Your task to perform on an android device: clear history in the chrome app Image 0: 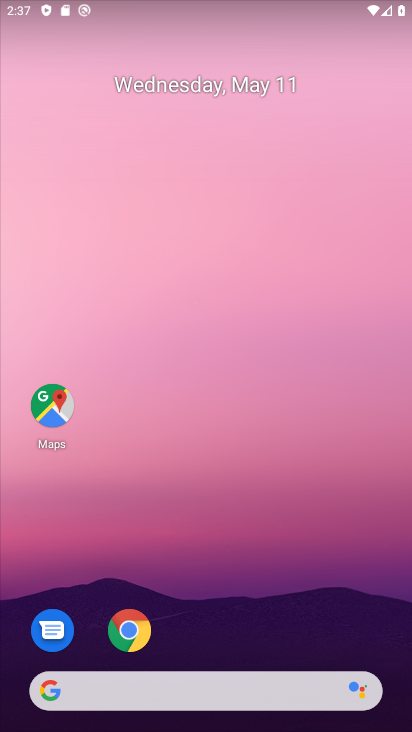
Step 0: click (137, 635)
Your task to perform on an android device: clear history in the chrome app Image 1: 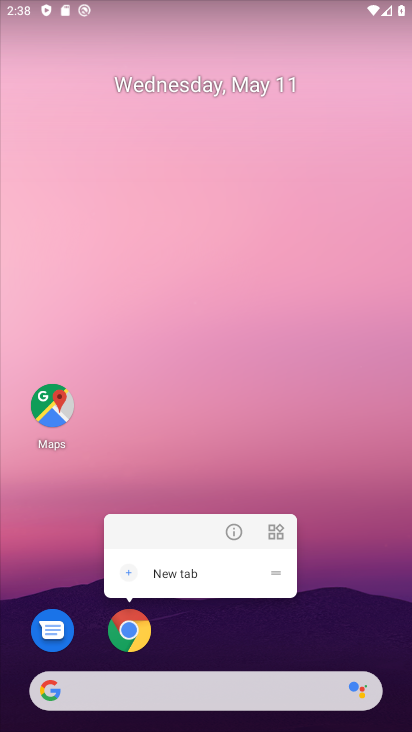
Step 1: click (194, 623)
Your task to perform on an android device: clear history in the chrome app Image 2: 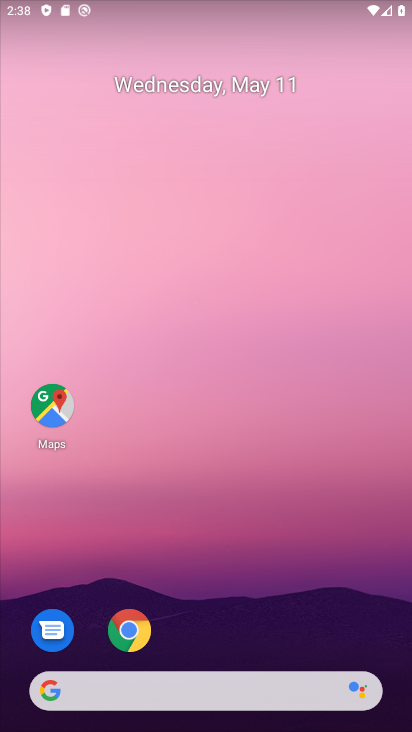
Step 2: click (127, 629)
Your task to perform on an android device: clear history in the chrome app Image 3: 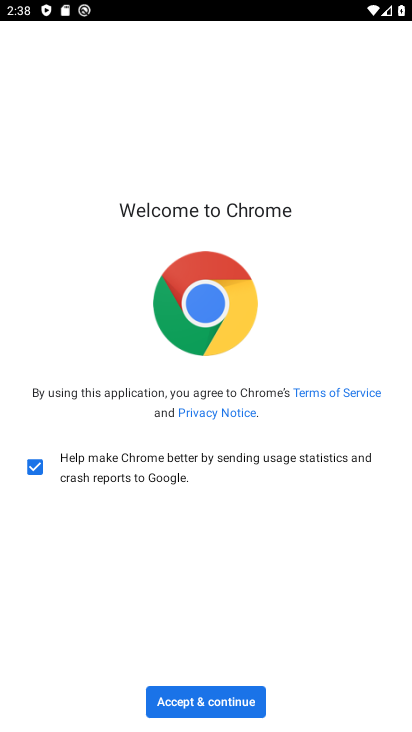
Step 3: click (194, 712)
Your task to perform on an android device: clear history in the chrome app Image 4: 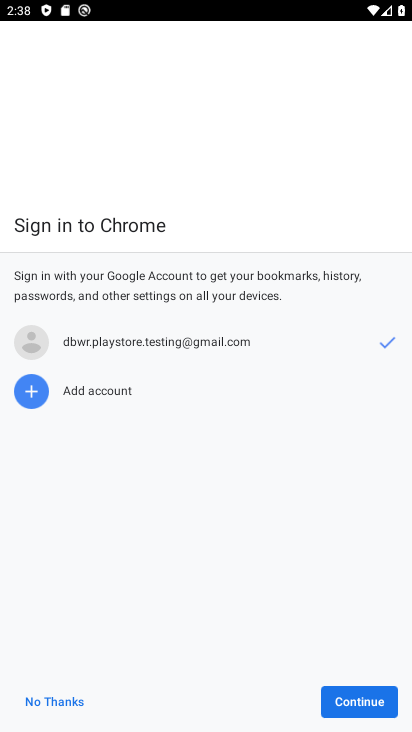
Step 4: click (43, 705)
Your task to perform on an android device: clear history in the chrome app Image 5: 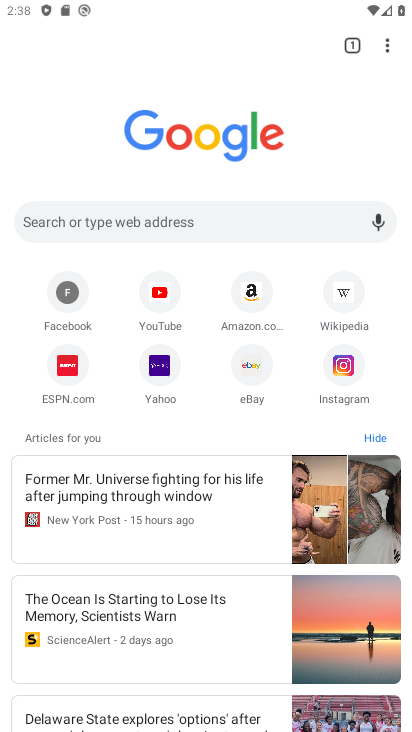
Step 5: drag from (388, 45) to (222, 386)
Your task to perform on an android device: clear history in the chrome app Image 6: 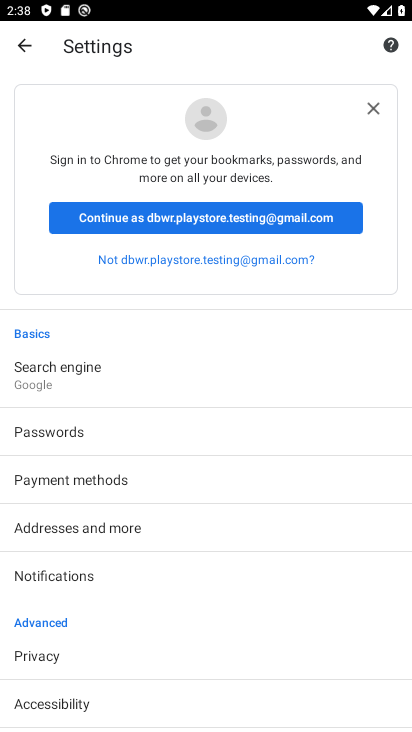
Step 6: click (42, 661)
Your task to perform on an android device: clear history in the chrome app Image 7: 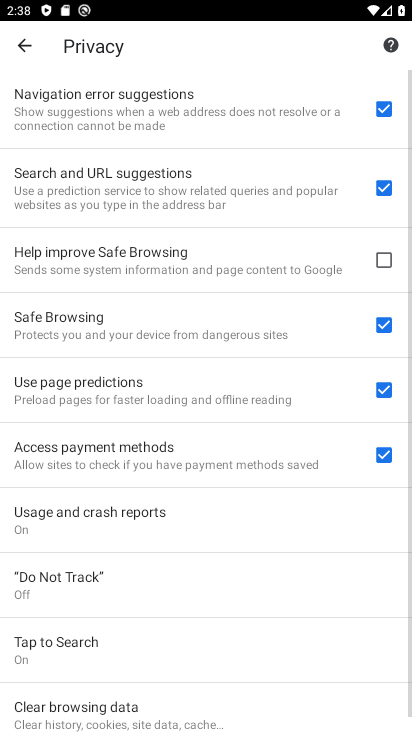
Step 7: drag from (172, 654) to (174, 400)
Your task to perform on an android device: clear history in the chrome app Image 8: 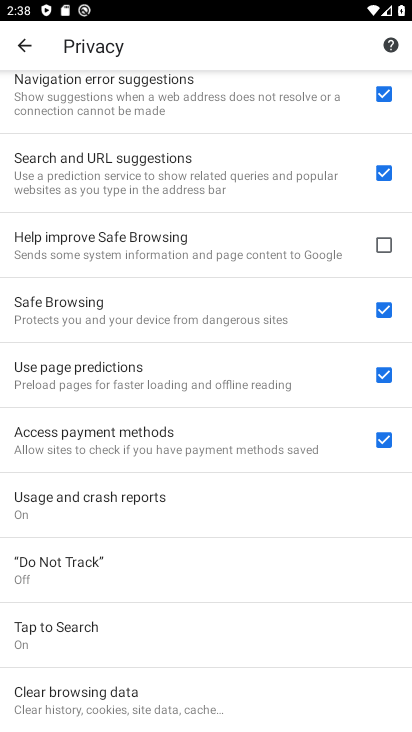
Step 8: click (79, 693)
Your task to perform on an android device: clear history in the chrome app Image 9: 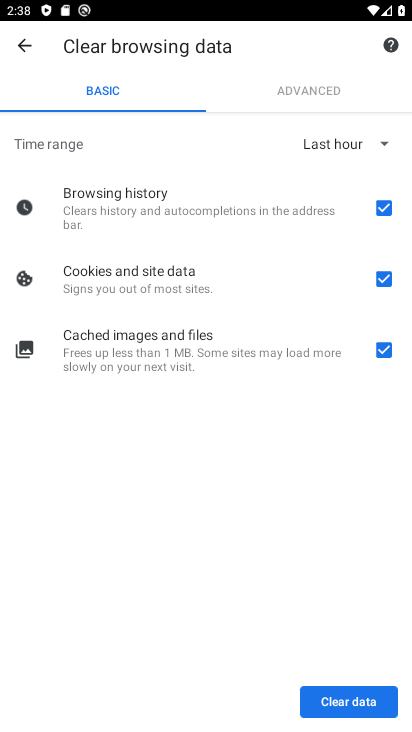
Step 9: click (373, 276)
Your task to perform on an android device: clear history in the chrome app Image 10: 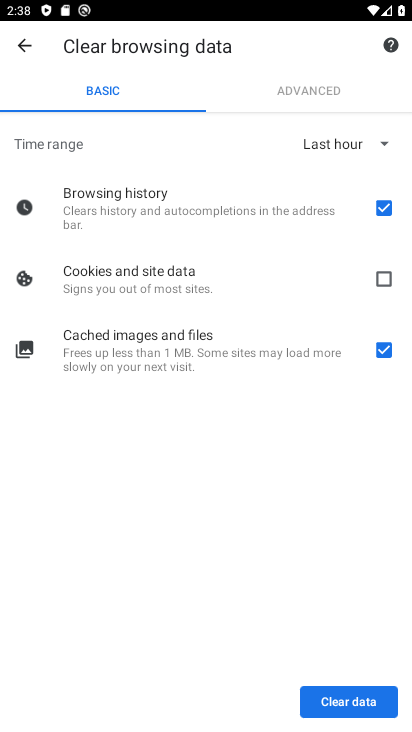
Step 10: click (391, 345)
Your task to perform on an android device: clear history in the chrome app Image 11: 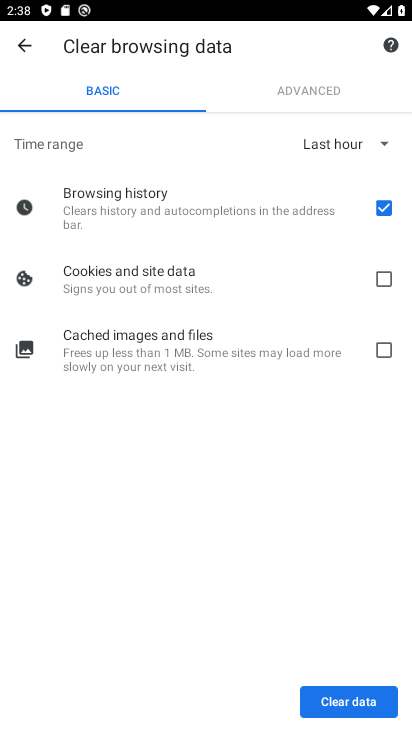
Step 11: click (338, 709)
Your task to perform on an android device: clear history in the chrome app Image 12: 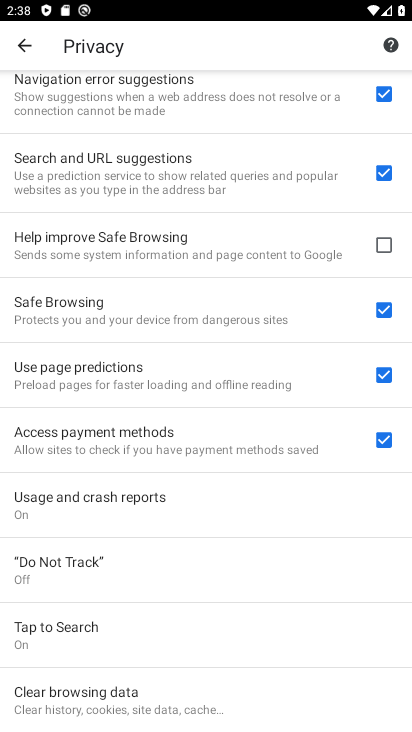
Step 12: task complete